Your task to perform on an android device: Open the map Image 0: 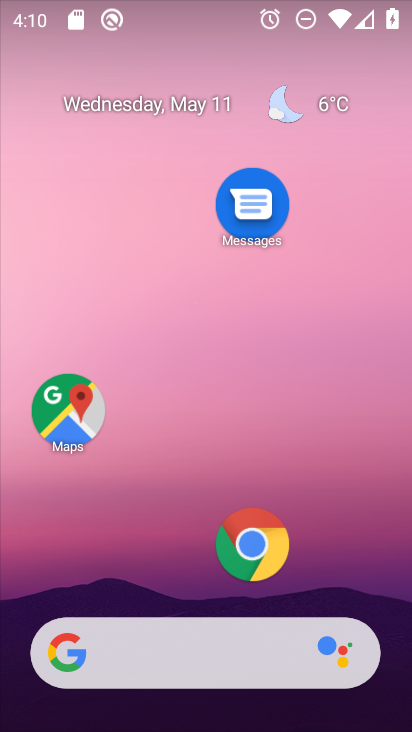
Step 0: click (94, 412)
Your task to perform on an android device: Open the map Image 1: 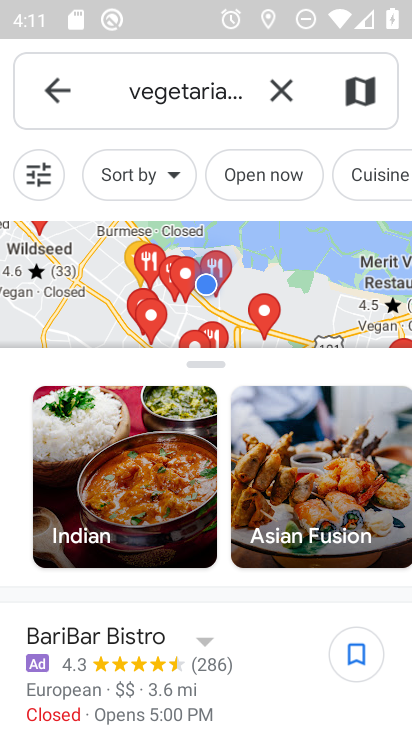
Step 1: task complete